Your task to perform on an android device: toggle data saver in the chrome app Image 0: 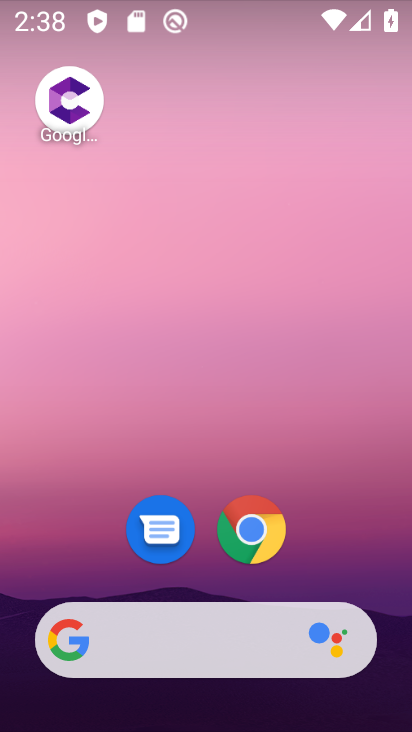
Step 0: click (246, 537)
Your task to perform on an android device: toggle data saver in the chrome app Image 1: 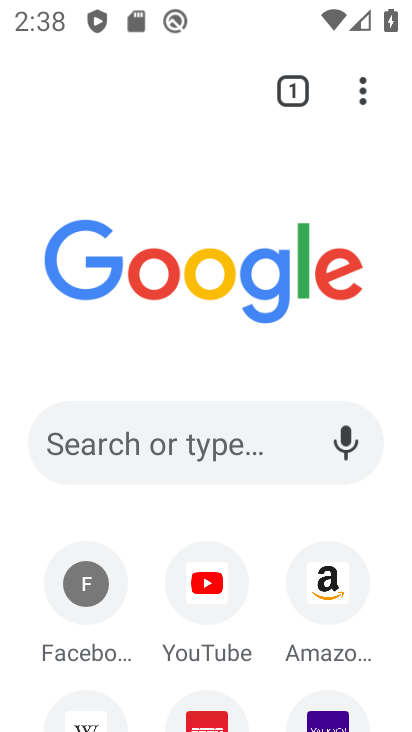
Step 1: drag from (387, 93) to (264, 566)
Your task to perform on an android device: toggle data saver in the chrome app Image 2: 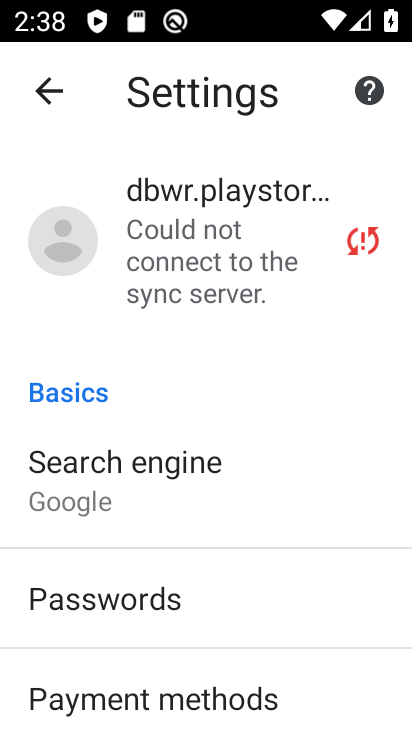
Step 2: drag from (197, 656) to (343, 225)
Your task to perform on an android device: toggle data saver in the chrome app Image 3: 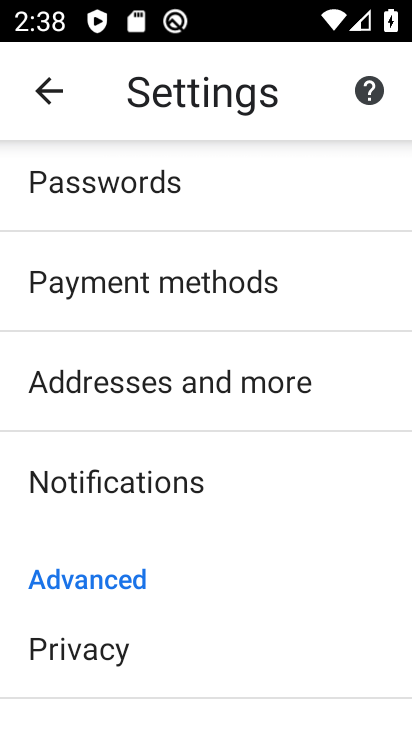
Step 3: drag from (254, 596) to (349, 254)
Your task to perform on an android device: toggle data saver in the chrome app Image 4: 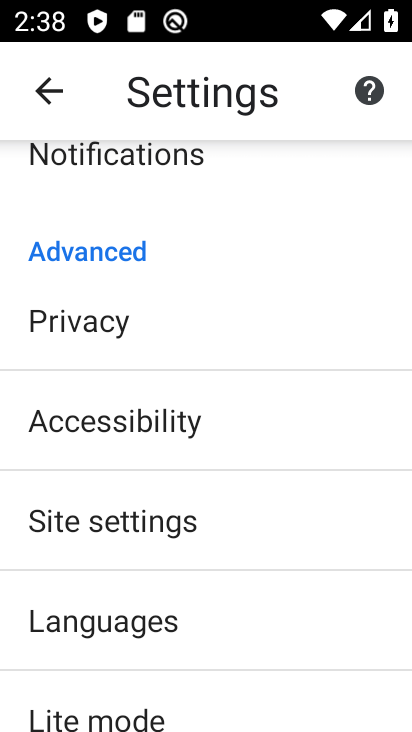
Step 4: drag from (197, 682) to (288, 431)
Your task to perform on an android device: toggle data saver in the chrome app Image 5: 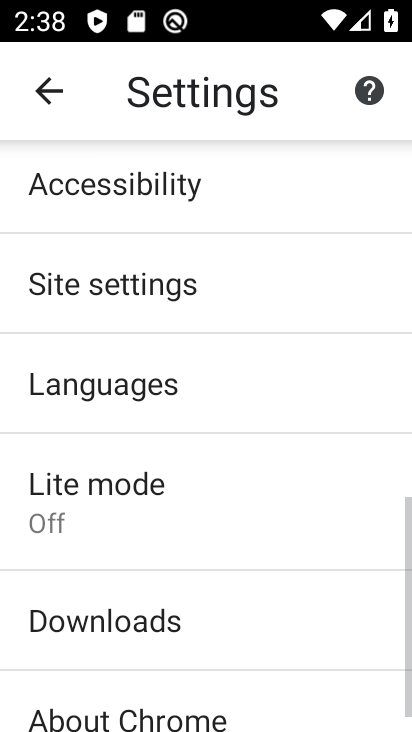
Step 5: click (246, 488)
Your task to perform on an android device: toggle data saver in the chrome app Image 6: 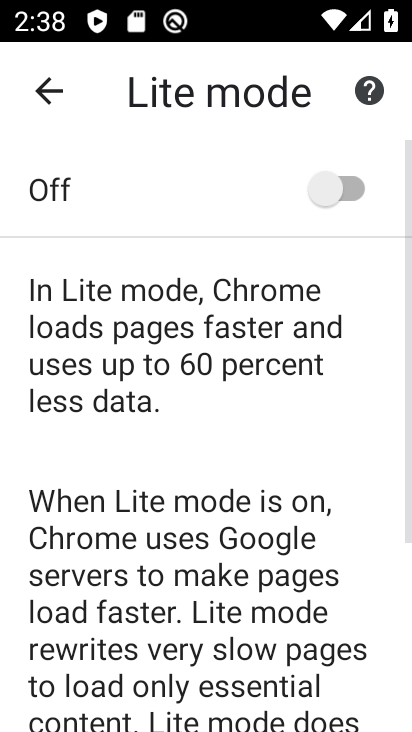
Step 6: click (380, 182)
Your task to perform on an android device: toggle data saver in the chrome app Image 7: 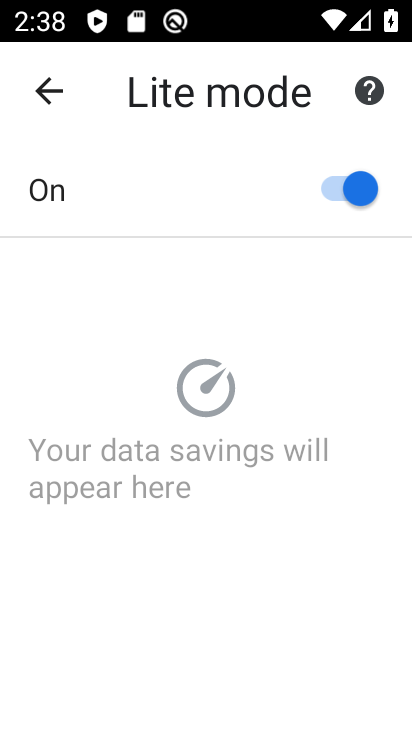
Step 7: task complete